Your task to perform on an android device: toggle data saver in the chrome app Image 0: 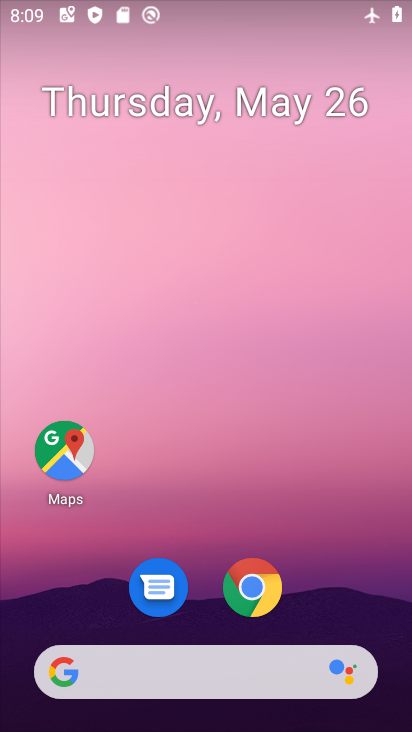
Step 0: click (261, 568)
Your task to perform on an android device: toggle data saver in the chrome app Image 1: 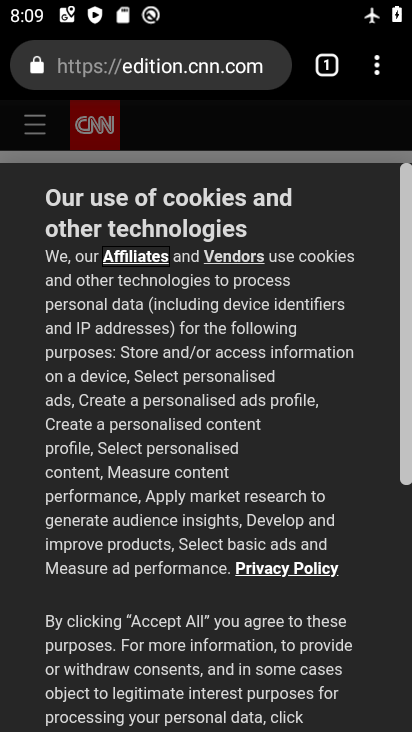
Step 1: drag from (372, 71) to (163, 631)
Your task to perform on an android device: toggle data saver in the chrome app Image 2: 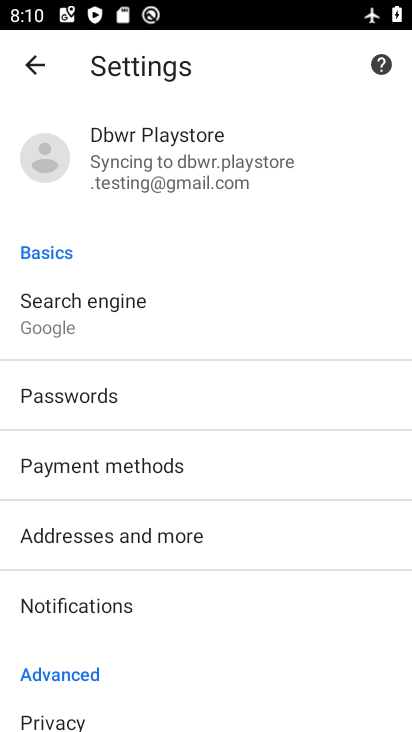
Step 2: drag from (194, 628) to (266, 397)
Your task to perform on an android device: toggle data saver in the chrome app Image 3: 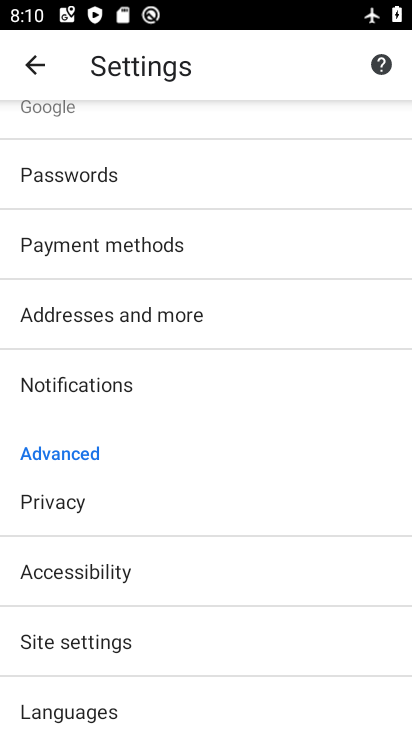
Step 3: drag from (131, 661) to (182, 402)
Your task to perform on an android device: toggle data saver in the chrome app Image 4: 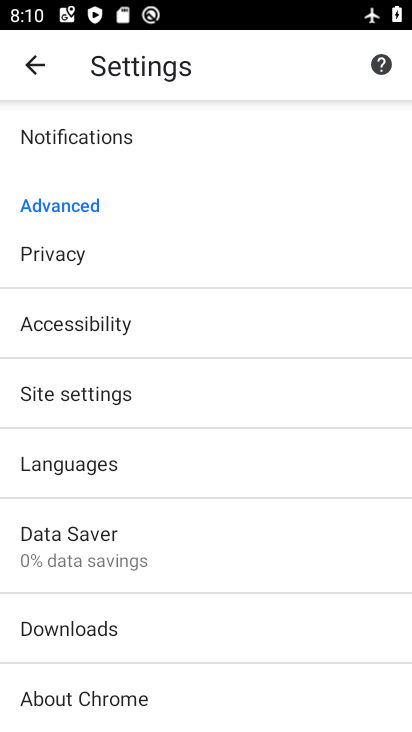
Step 4: click (148, 544)
Your task to perform on an android device: toggle data saver in the chrome app Image 5: 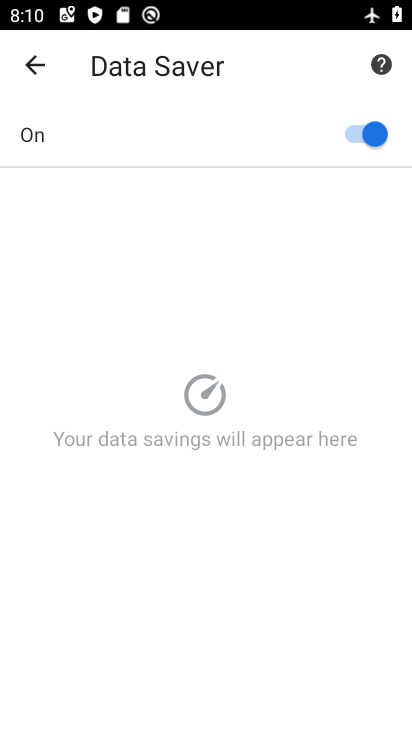
Step 5: click (350, 143)
Your task to perform on an android device: toggle data saver in the chrome app Image 6: 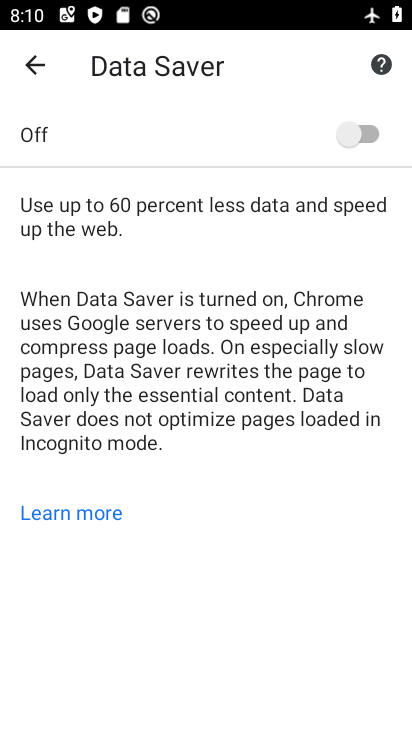
Step 6: task complete